Your task to perform on an android device: make emails show in primary in the gmail app Image 0: 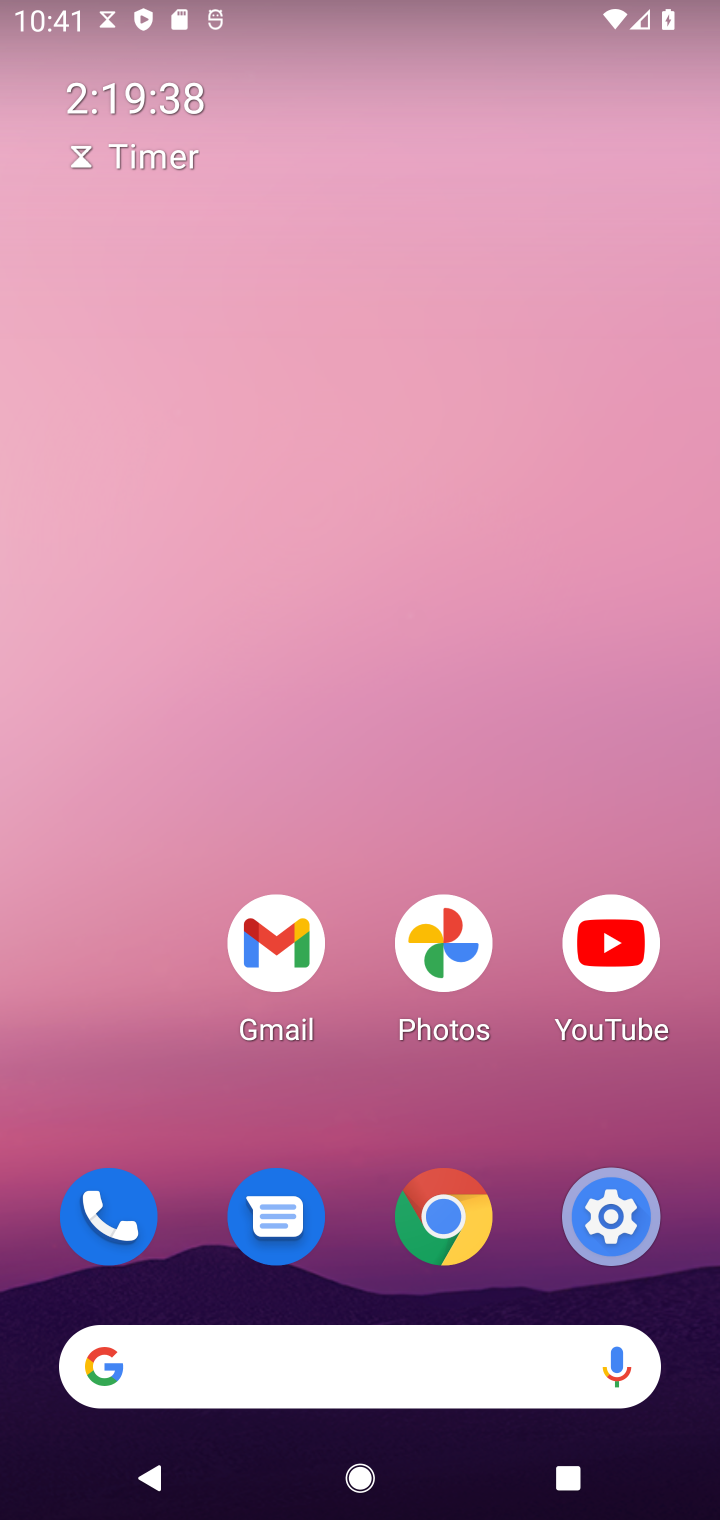
Step 0: click (268, 934)
Your task to perform on an android device: make emails show in primary in the gmail app Image 1: 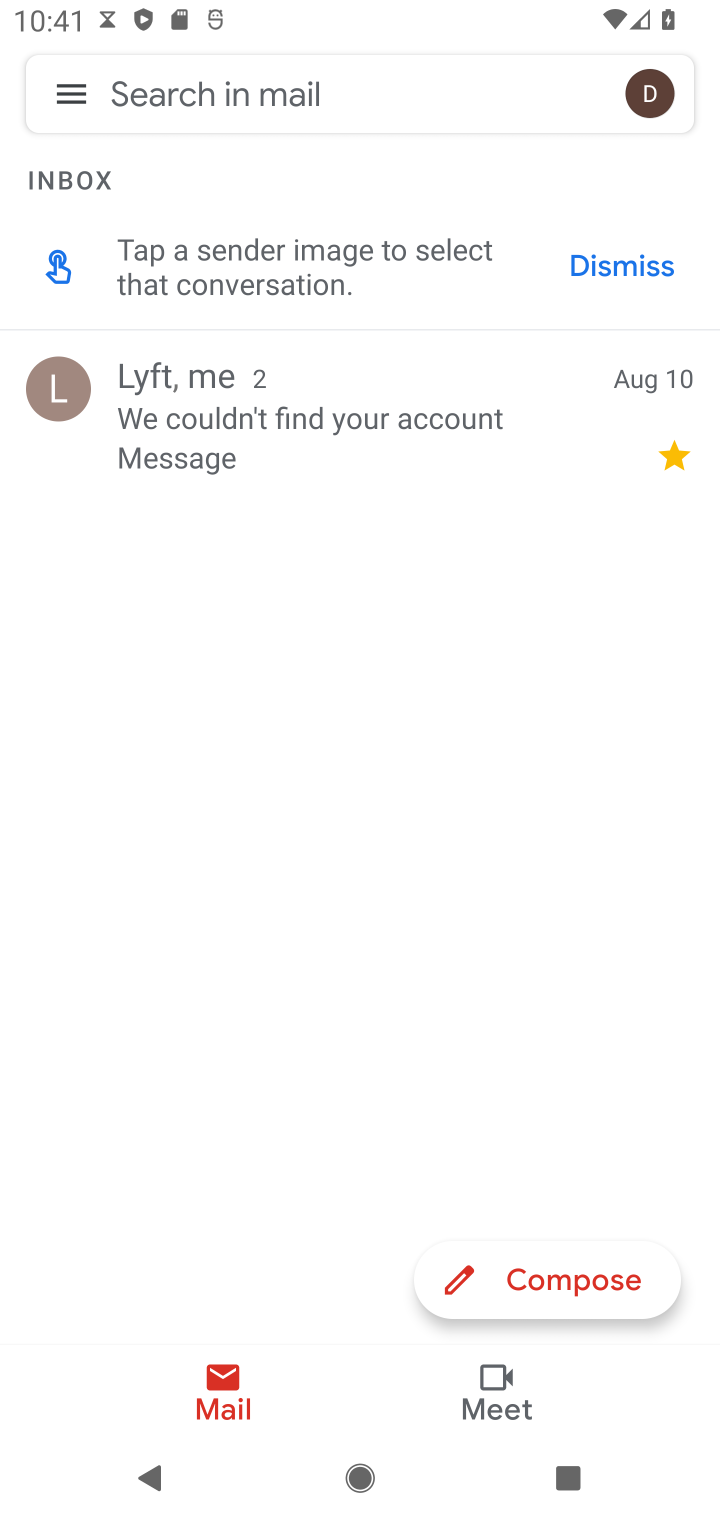
Step 1: click (34, 94)
Your task to perform on an android device: make emails show in primary in the gmail app Image 2: 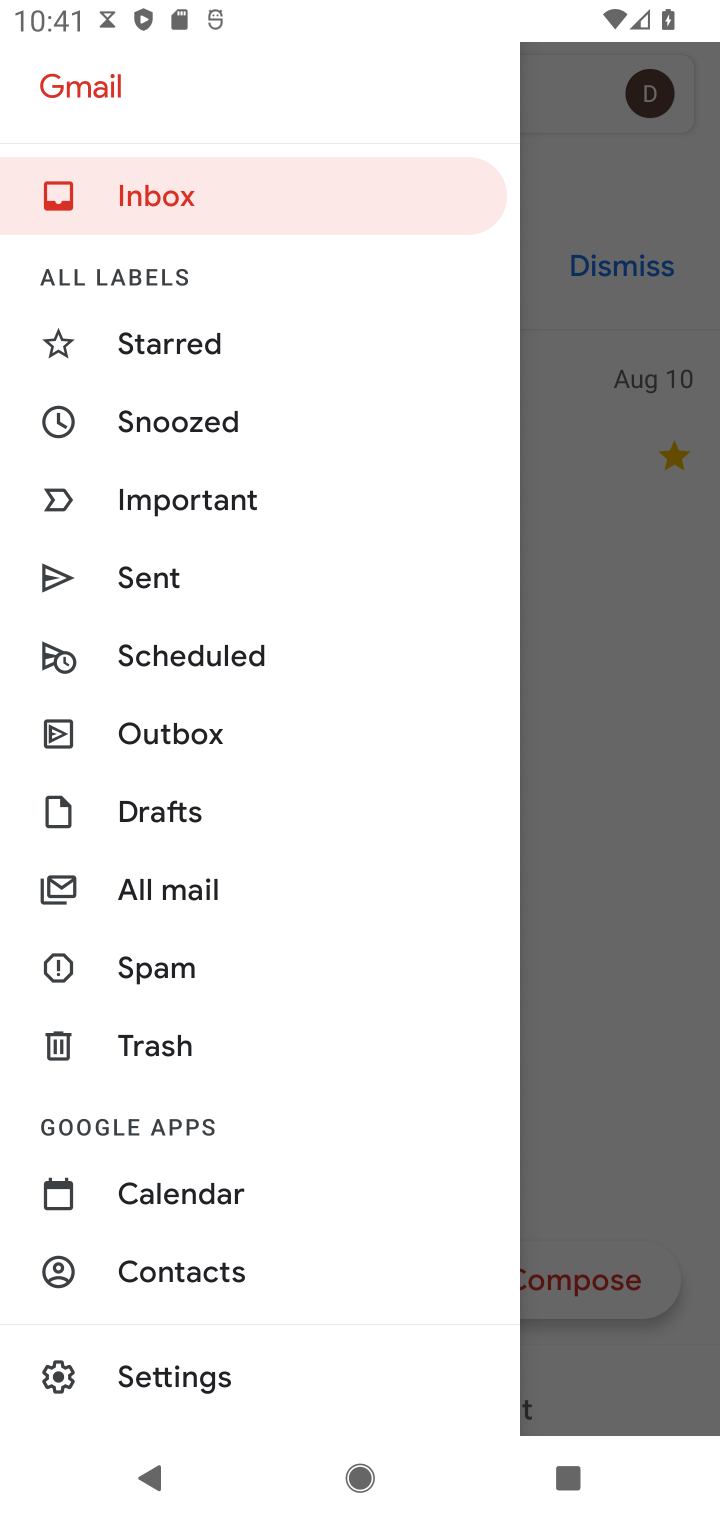
Step 2: click (260, 1351)
Your task to perform on an android device: make emails show in primary in the gmail app Image 3: 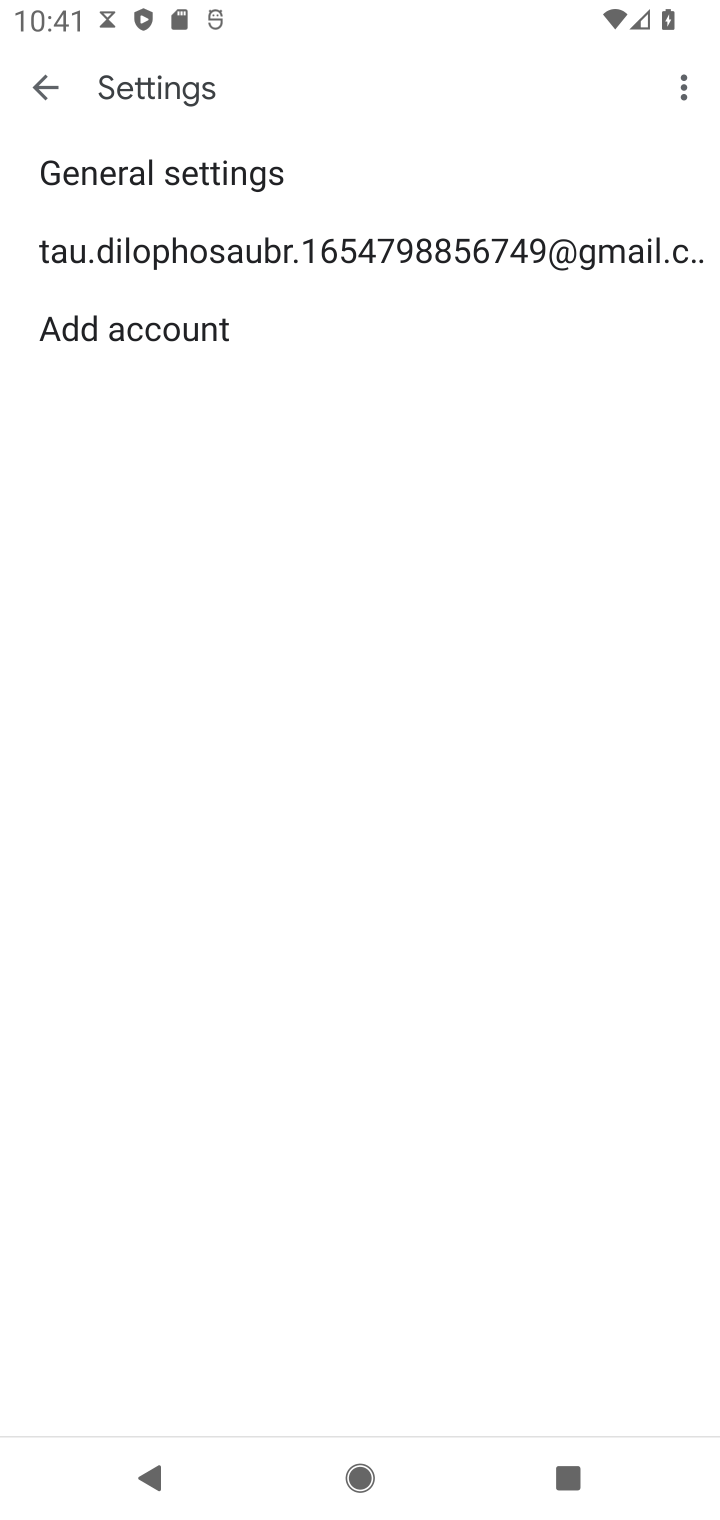
Step 3: click (180, 237)
Your task to perform on an android device: make emails show in primary in the gmail app Image 4: 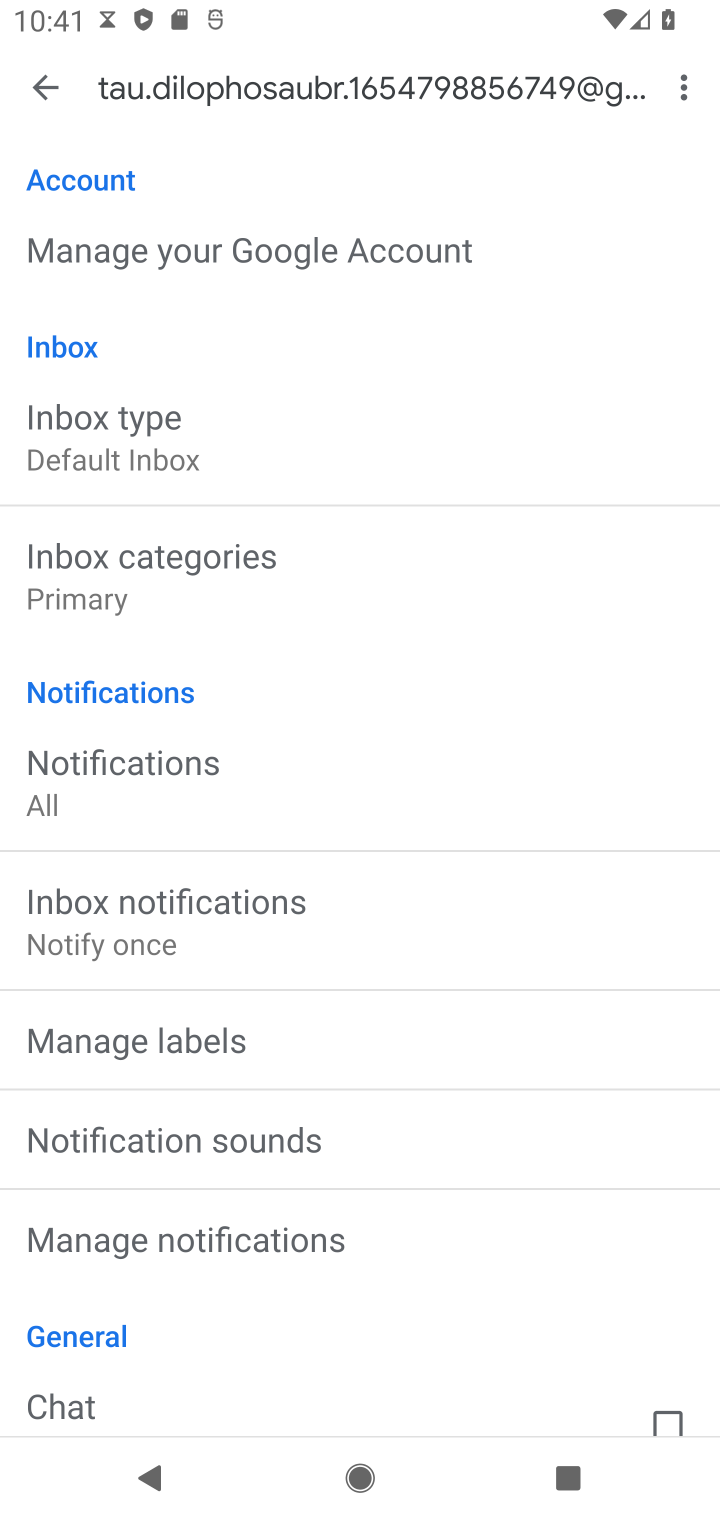
Step 4: click (169, 565)
Your task to perform on an android device: make emails show in primary in the gmail app Image 5: 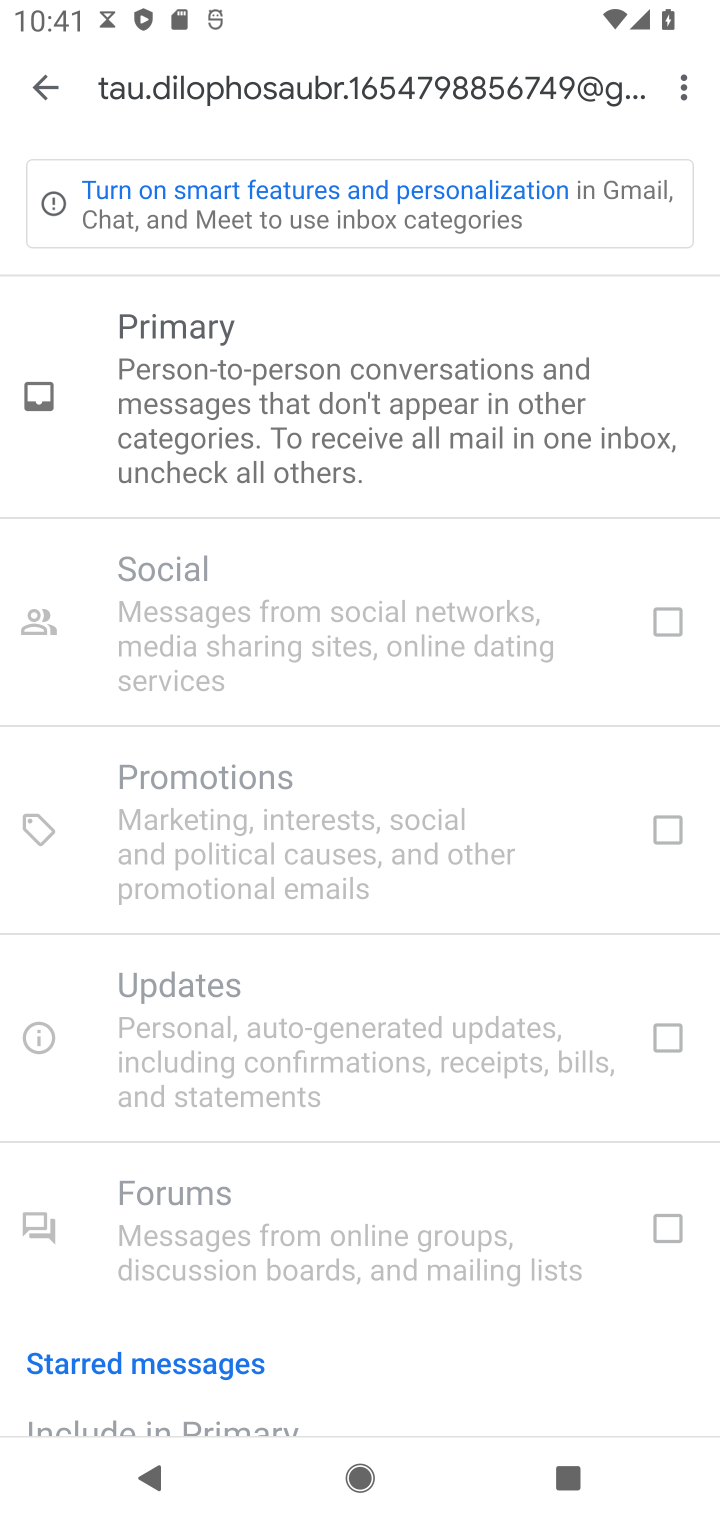
Step 5: drag from (404, 1362) to (522, 416)
Your task to perform on an android device: make emails show in primary in the gmail app Image 6: 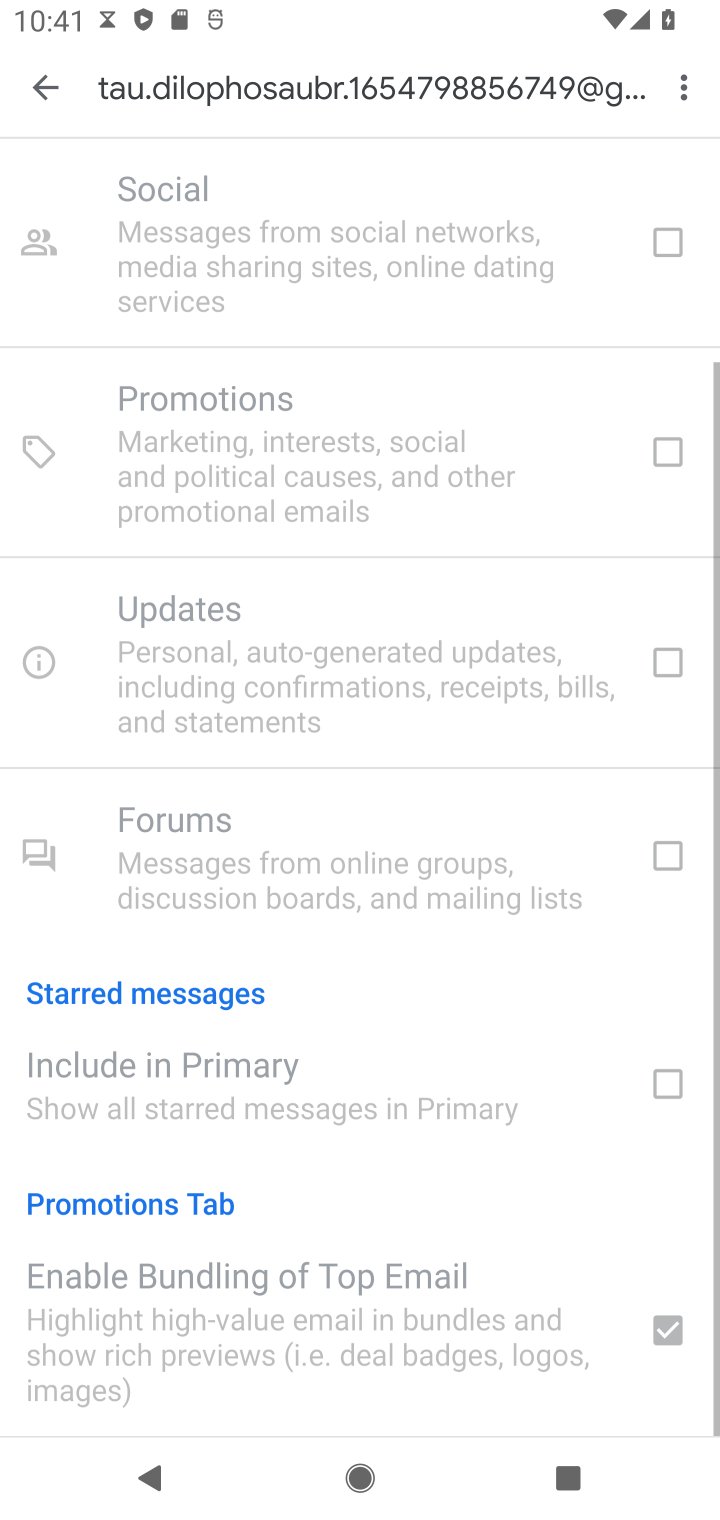
Step 6: drag from (527, 444) to (282, 1512)
Your task to perform on an android device: make emails show in primary in the gmail app Image 7: 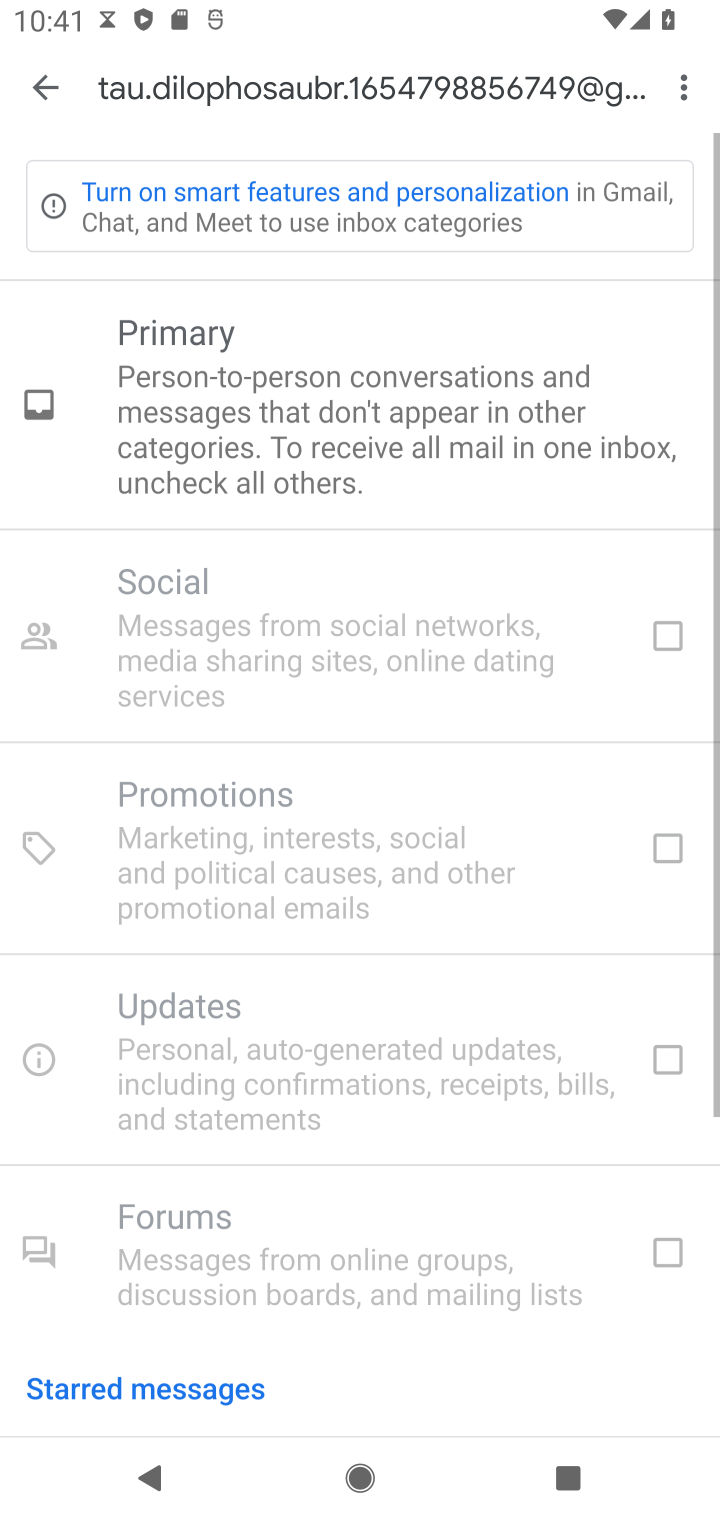
Step 7: click (444, 373)
Your task to perform on an android device: make emails show in primary in the gmail app Image 8: 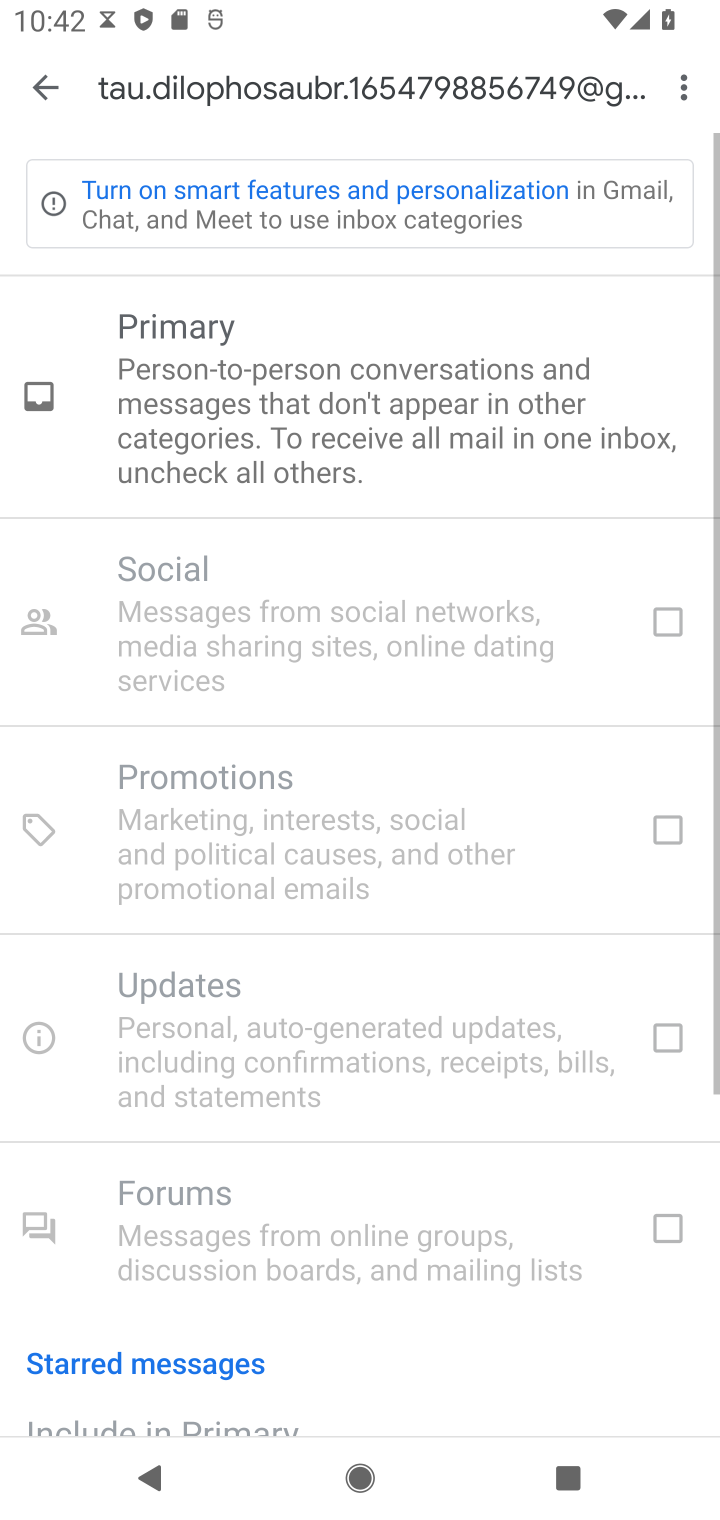
Step 8: click (661, 615)
Your task to perform on an android device: make emails show in primary in the gmail app Image 9: 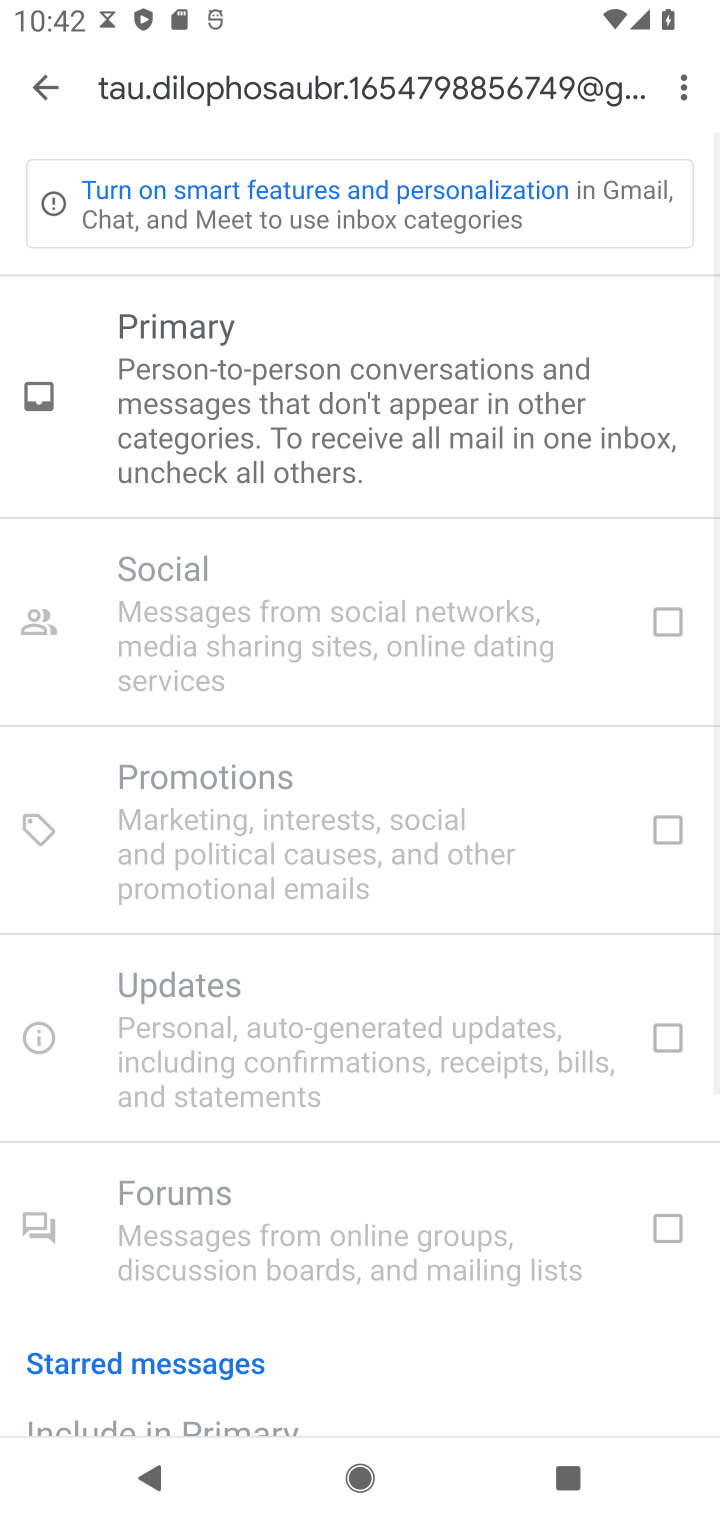
Step 9: drag from (370, 1427) to (430, 209)
Your task to perform on an android device: make emails show in primary in the gmail app Image 10: 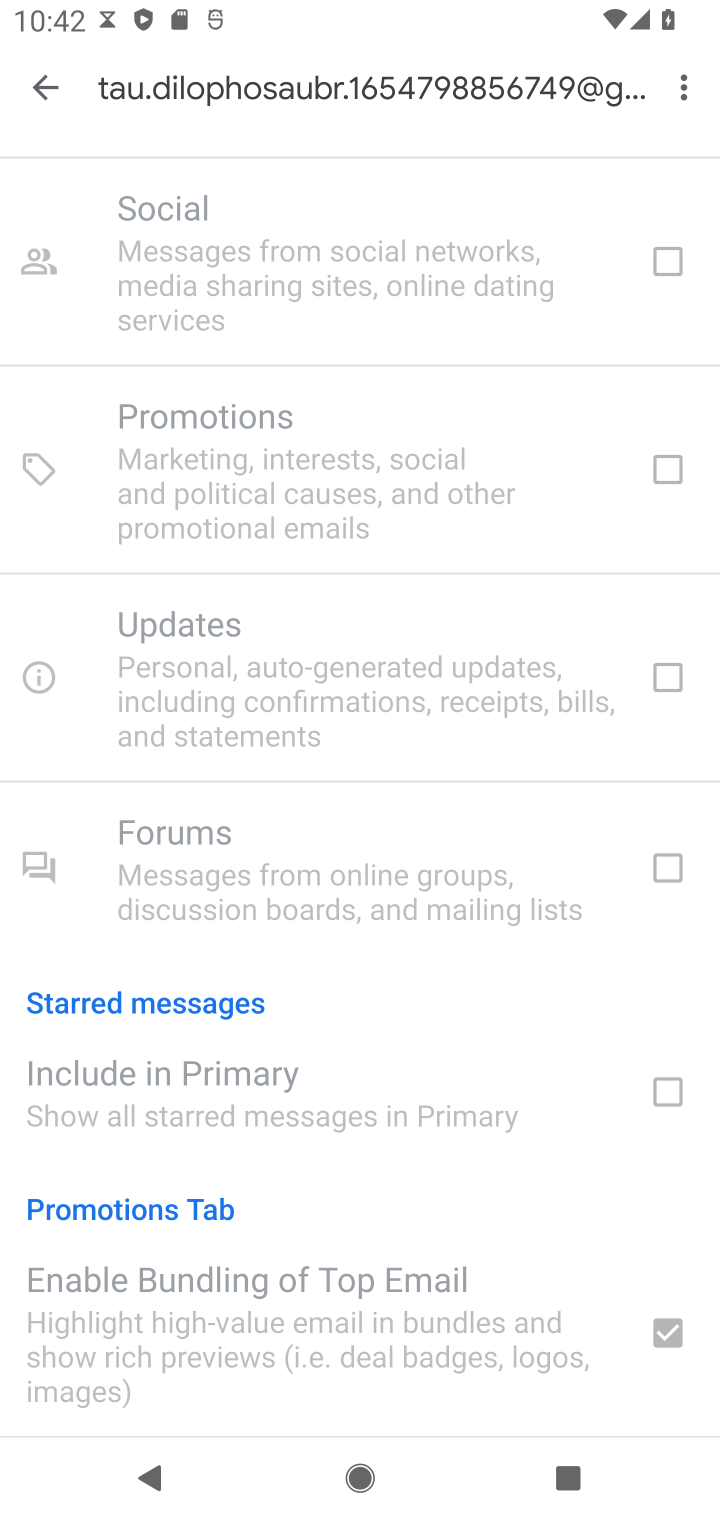
Step 10: click (667, 1085)
Your task to perform on an android device: make emails show in primary in the gmail app Image 11: 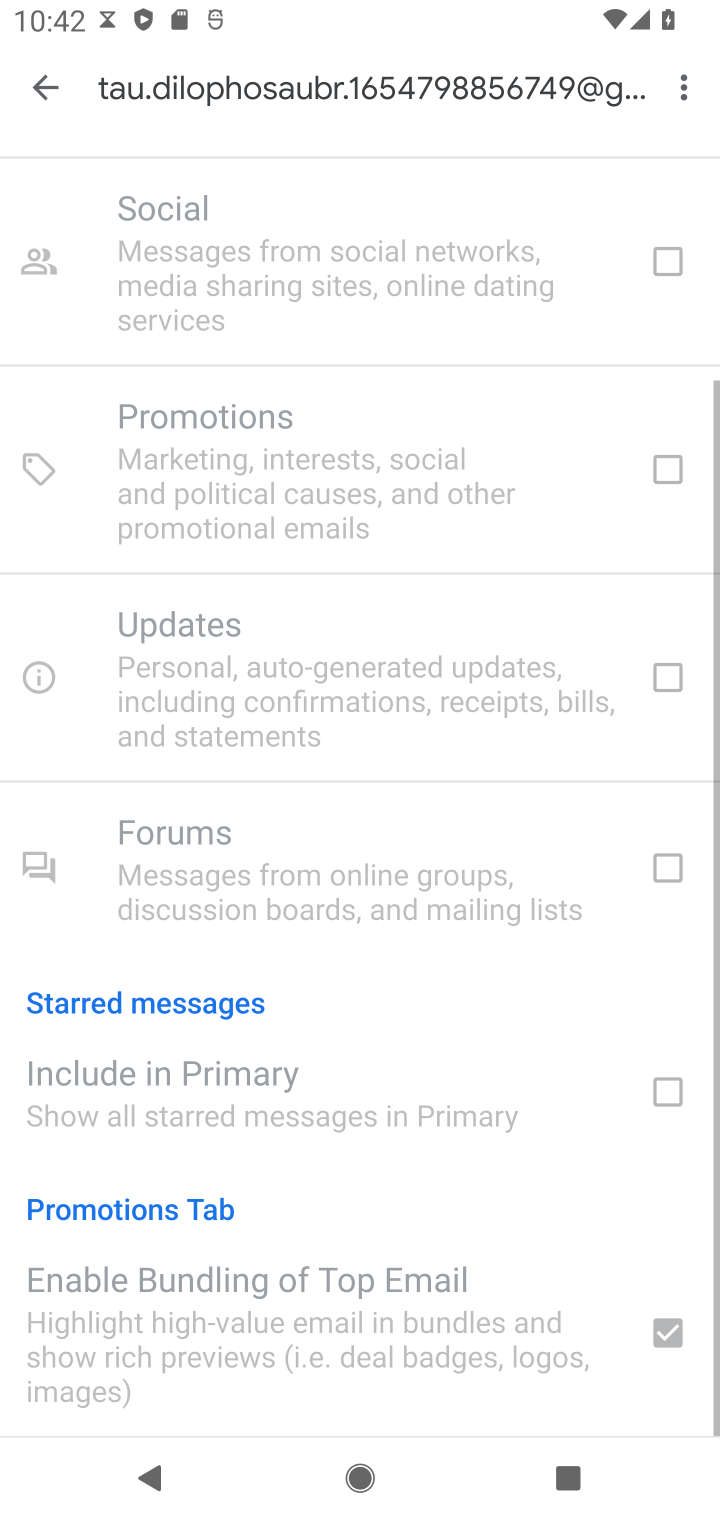
Step 11: task complete